Your task to perform on an android device: Play the last video I watched on Youtube Image 0: 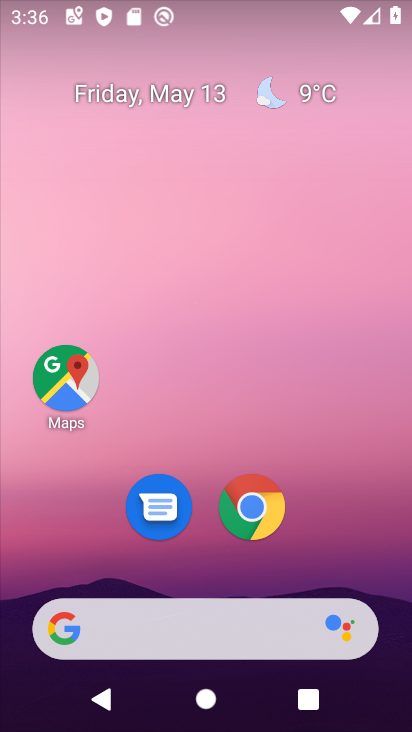
Step 0: drag from (344, 551) to (273, 58)
Your task to perform on an android device: Play the last video I watched on Youtube Image 1: 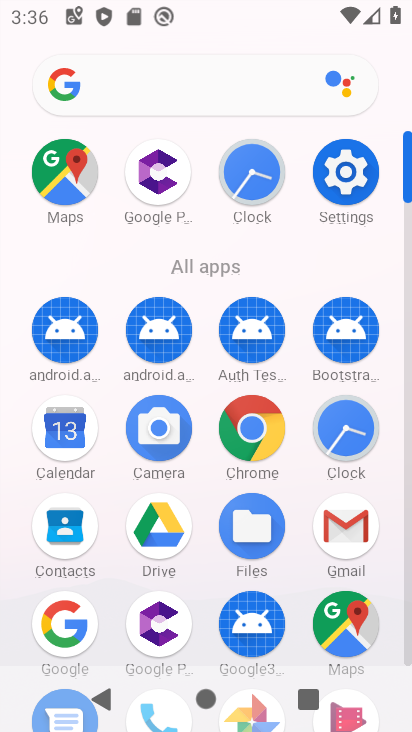
Step 1: drag from (391, 583) to (341, 314)
Your task to perform on an android device: Play the last video I watched on Youtube Image 2: 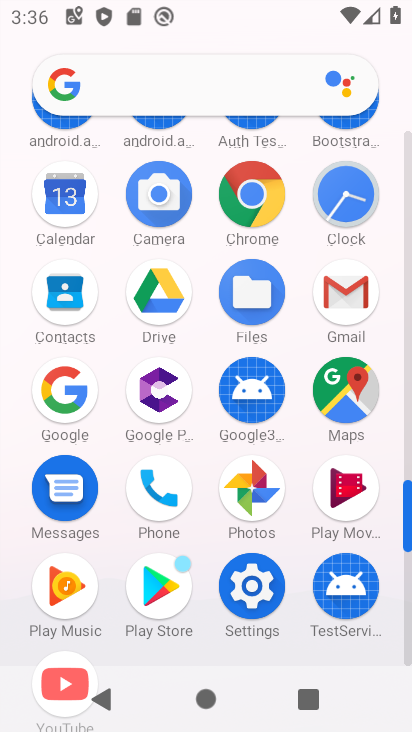
Step 2: drag from (379, 617) to (366, 305)
Your task to perform on an android device: Play the last video I watched on Youtube Image 3: 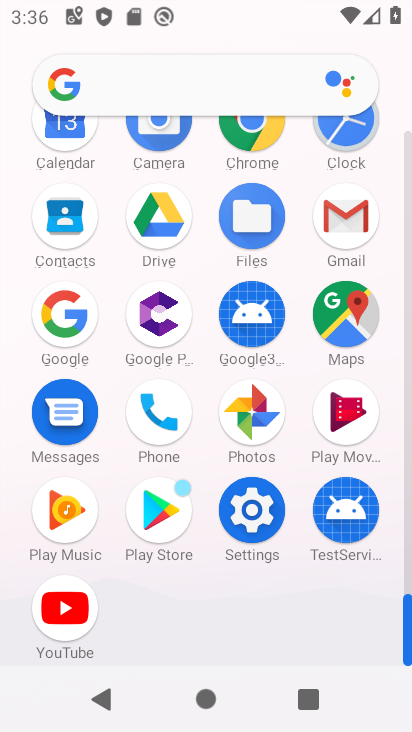
Step 3: click (70, 604)
Your task to perform on an android device: Play the last video I watched on Youtube Image 4: 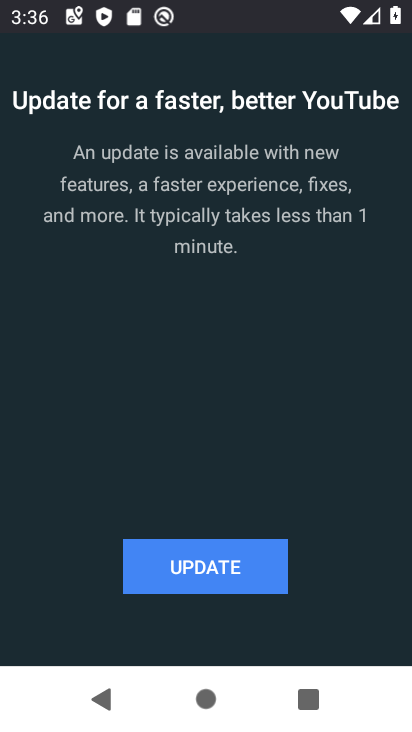
Step 4: click (179, 575)
Your task to perform on an android device: Play the last video I watched on Youtube Image 5: 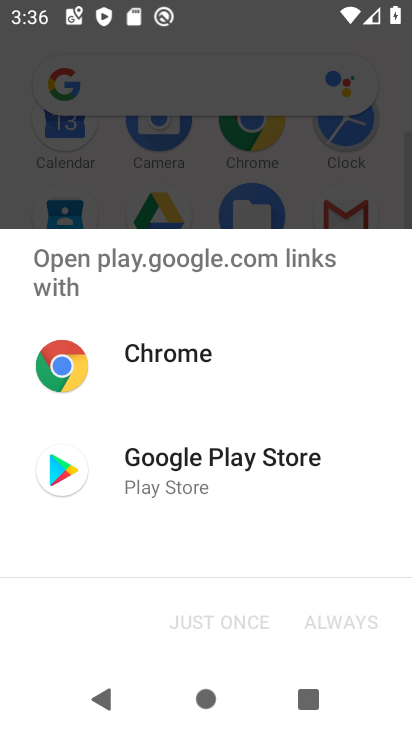
Step 5: click (140, 483)
Your task to perform on an android device: Play the last video I watched on Youtube Image 6: 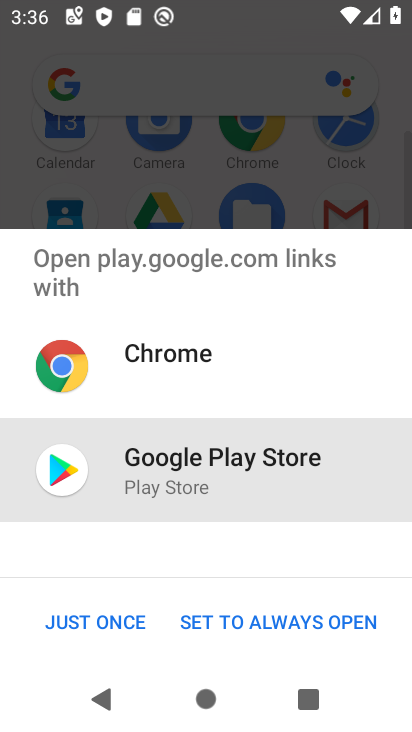
Step 6: click (127, 626)
Your task to perform on an android device: Play the last video I watched on Youtube Image 7: 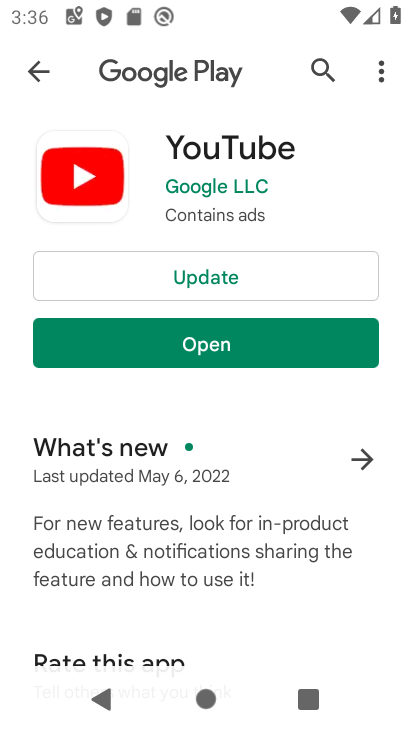
Step 7: click (137, 278)
Your task to perform on an android device: Play the last video I watched on Youtube Image 8: 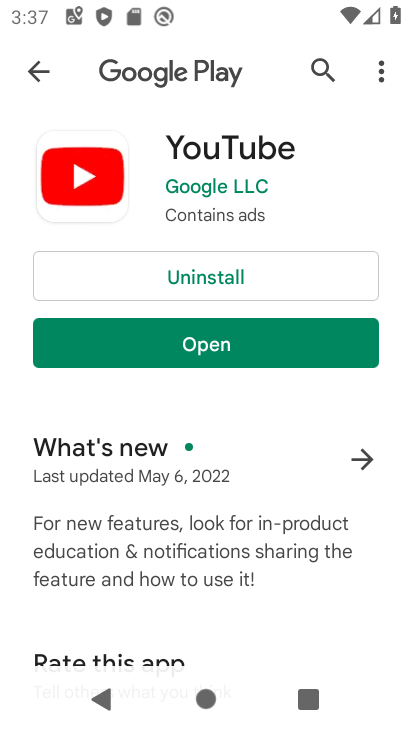
Step 8: click (213, 345)
Your task to perform on an android device: Play the last video I watched on Youtube Image 9: 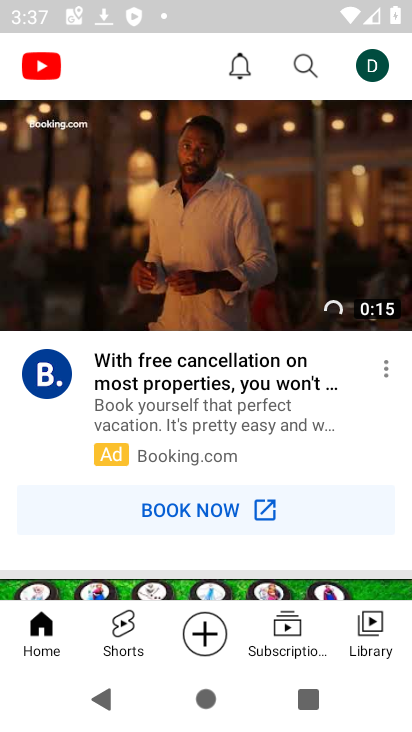
Step 9: click (364, 649)
Your task to perform on an android device: Play the last video I watched on Youtube Image 10: 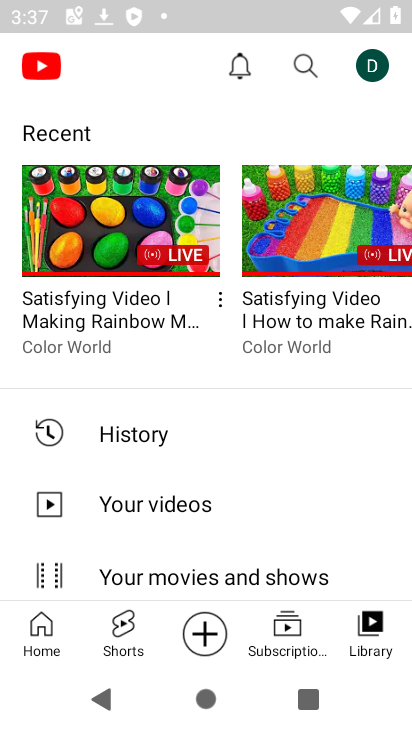
Step 10: click (127, 240)
Your task to perform on an android device: Play the last video I watched on Youtube Image 11: 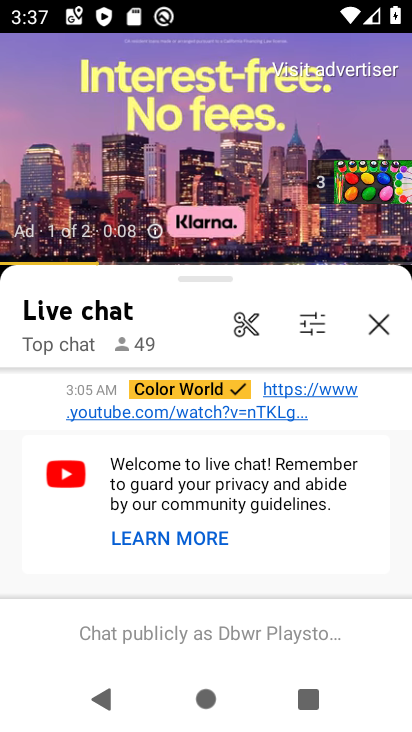
Step 11: task complete